Your task to perform on an android device: change timer sound Image 0: 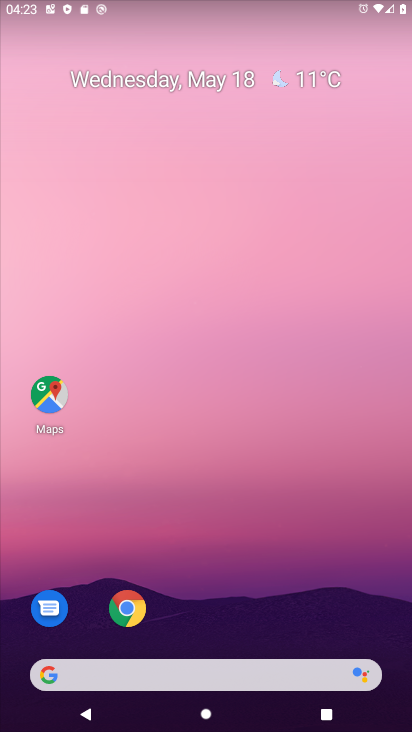
Step 0: drag from (207, 621) to (268, 46)
Your task to perform on an android device: change timer sound Image 1: 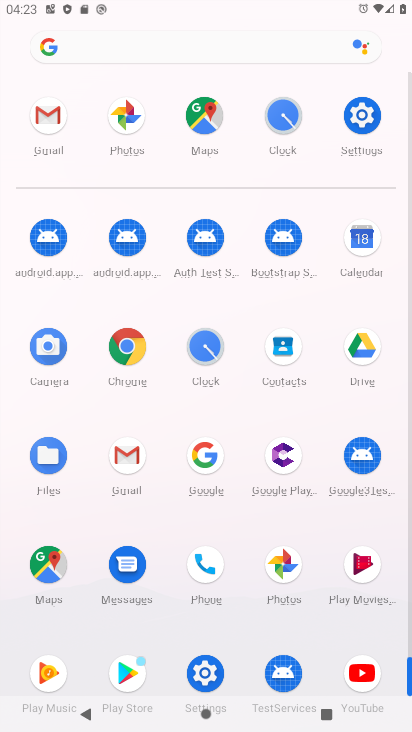
Step 1: click (355, 128)
Your task to perform on an android device: change timer sound Image 2: 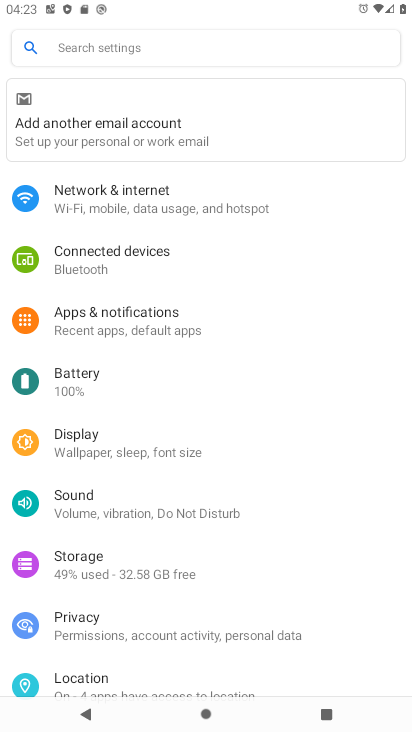
Step 2: press home button
Your task to perform on an android device: change timer sound Image 3: 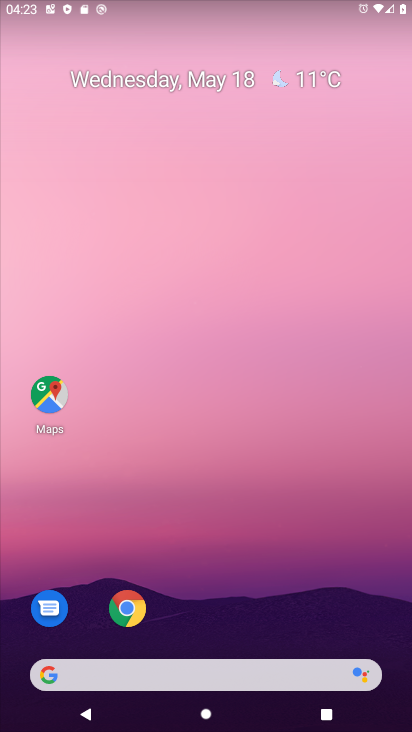
Step 3: drag from (194, 616) to (258, 81)
Your task to perform on an android device: change timer sound Image 4: 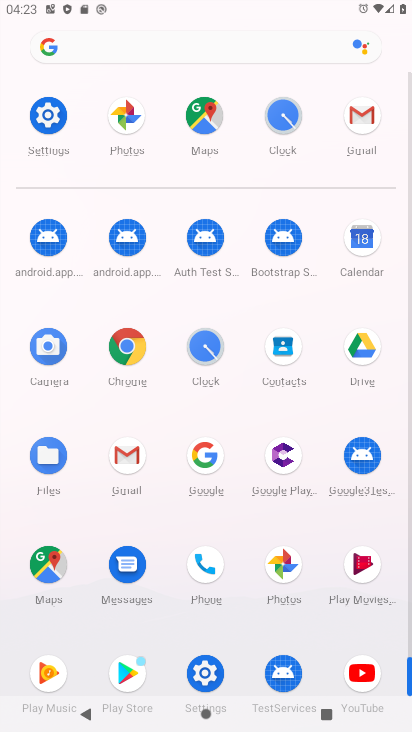
Step 4: click (281, 127)
Your task to perform on an android device: change timer sound Image 5: 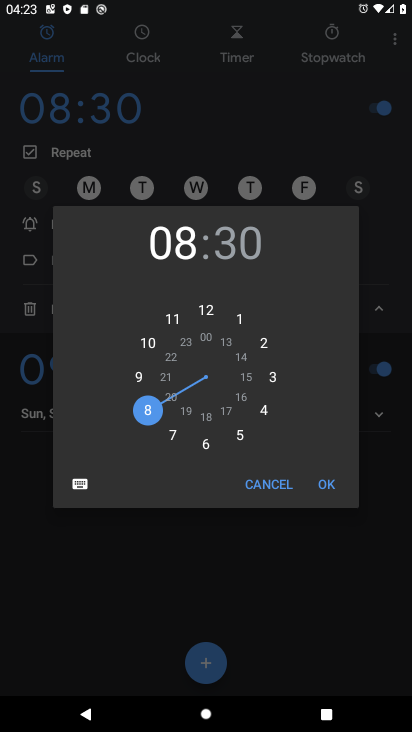
Step 5: click (206, 180)
Your task to perform on an android device: change timer sound Image 6: 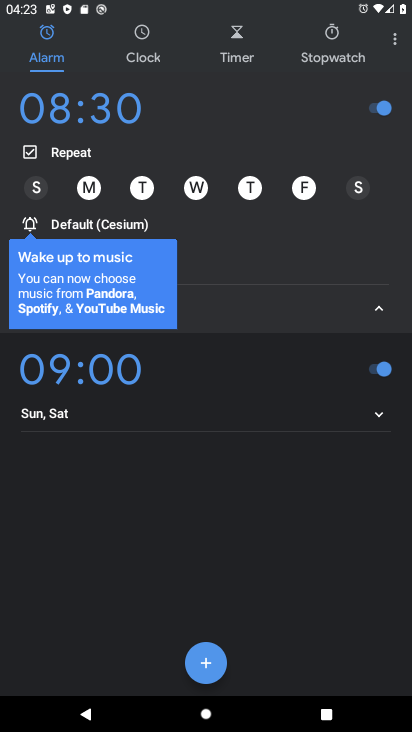
Step 6: click (403, 36)
Your task to perform on an android device: change timer sound Image 7: 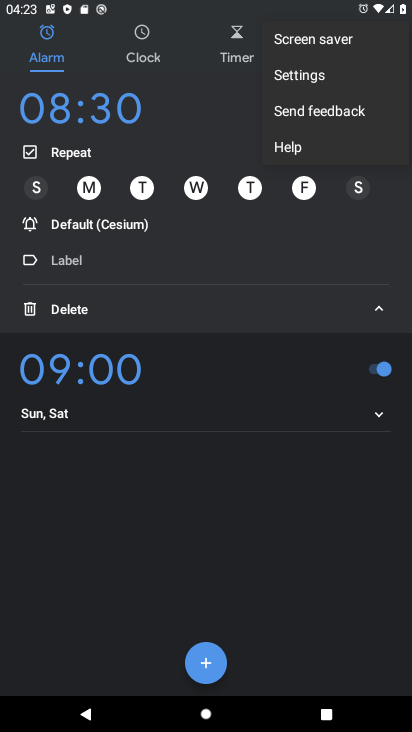
Step 7: click (333, 72)
Your task to perform on an android device: change timer sound Image 8: 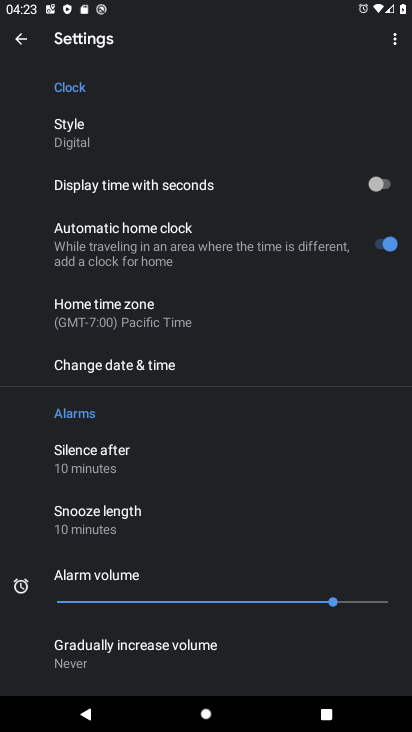
Step 8: drag from (211, 544) to (266, 205)
Your task to perform on an android device: change timer sound Image 9: 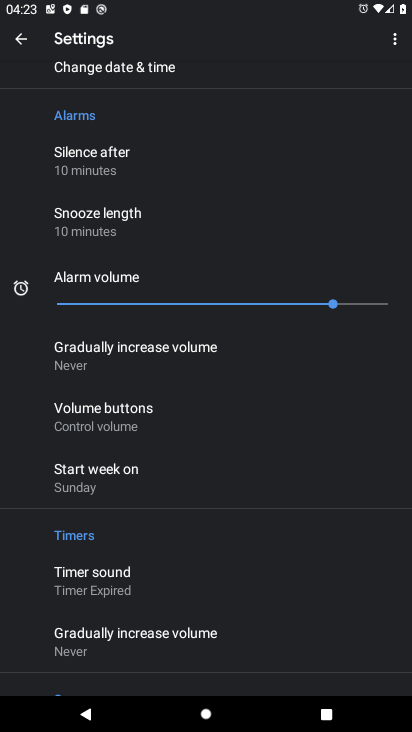
Step 9: click (129, 580)
Your task to perform on an android device: change timer sound Image 10: 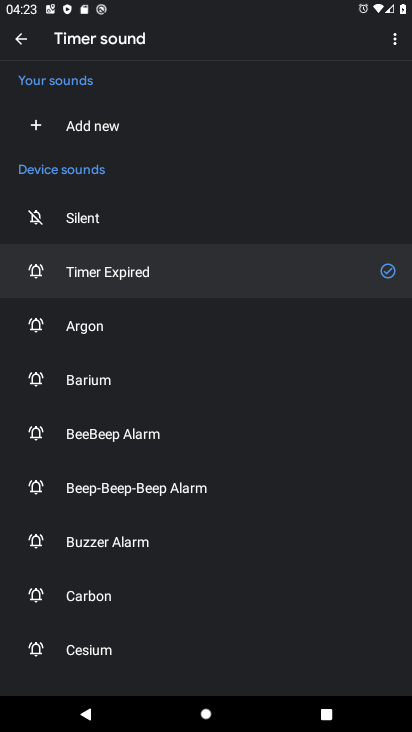
Step 10: task complete